Your task to perform on an android device: set default search engine in the chrome app Image 0: 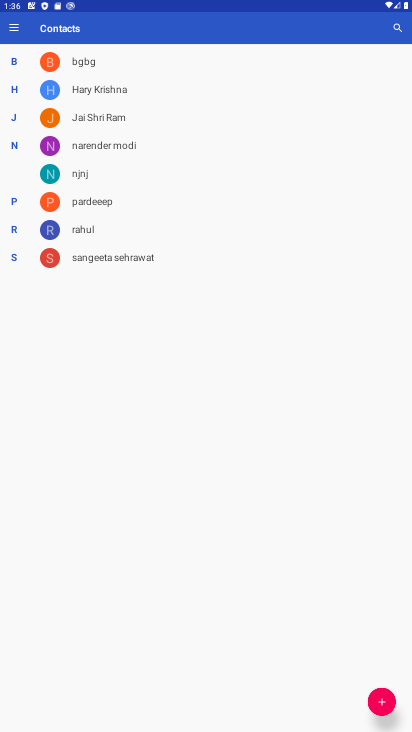
Step 0: press home button
Your task to perform on an android device: set default search engine in the chrome app Image 1: 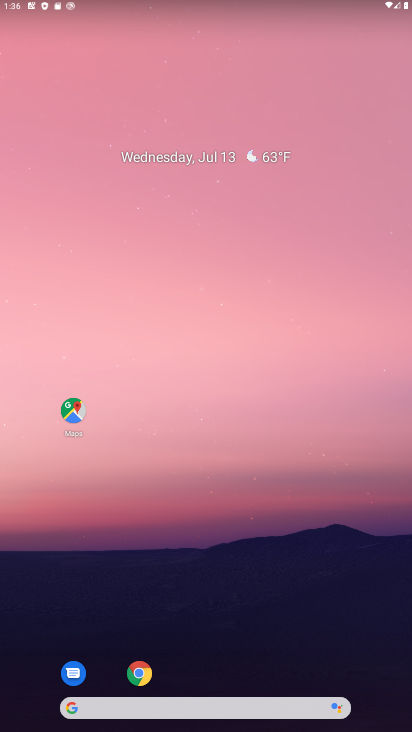
Step 1: drag from (263, 627) to (266, 202)
Your task to perform on an android device: set default search engine in the chrome app Image 2: 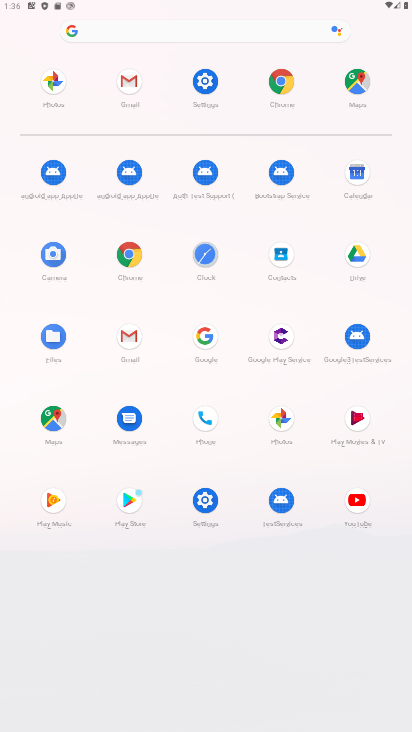
Step 2: click (275, 70)
Your task to perform on an android device: set default search engine in the chrome app Image 3: 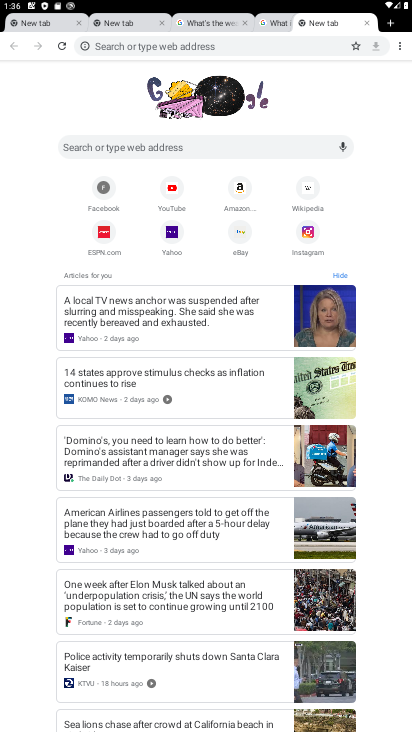
Step 3: click (400, 47)
Your task to perform on an android device: set default search engine in the chrome app Image 4: 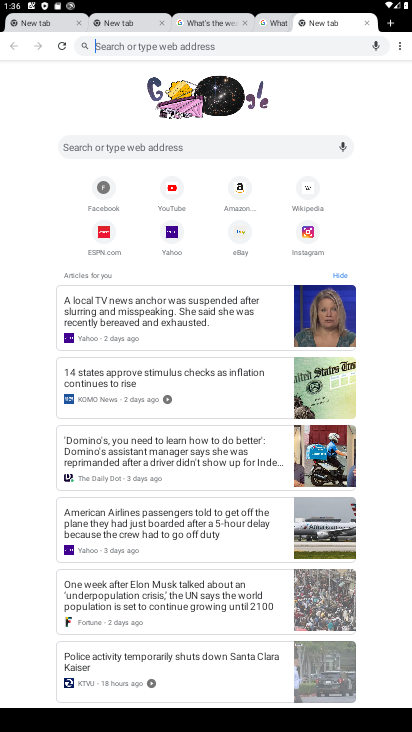
Step 4: click (409, 36)
Your task to perform on an android device: set default search engine in the chrome app Image 5: 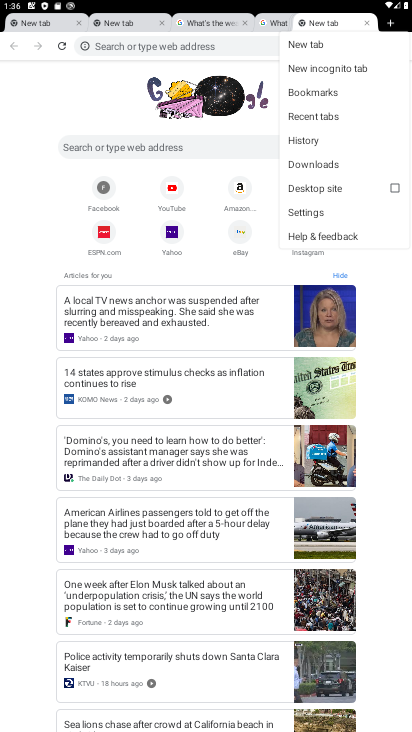
Step 5: click (317, 216)
Your task to perform on an android device: set default search engine in the chrome app Image 6: 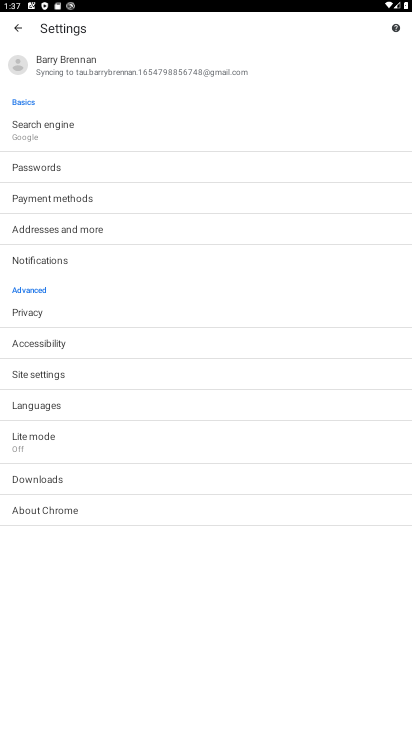
Step 6: click (47, 126)
Your task to perform on an android device: set default search engine in the chrome app Image 7: 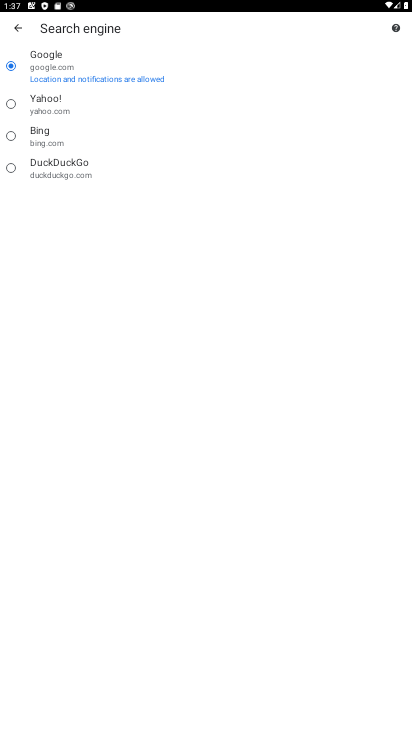
Step 7: click (40, 131)
Your task to perform on an android device: set default search engine in the chrome app Image 8: 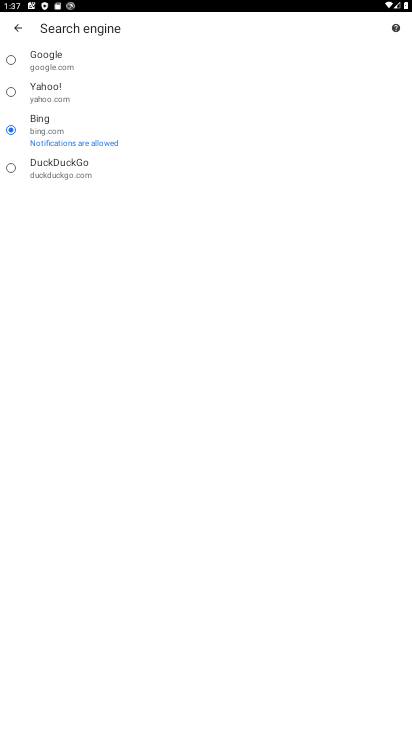
Step 8: task complete